Your task to perform on an android device: toggle javascript in the chrome app Image 0: 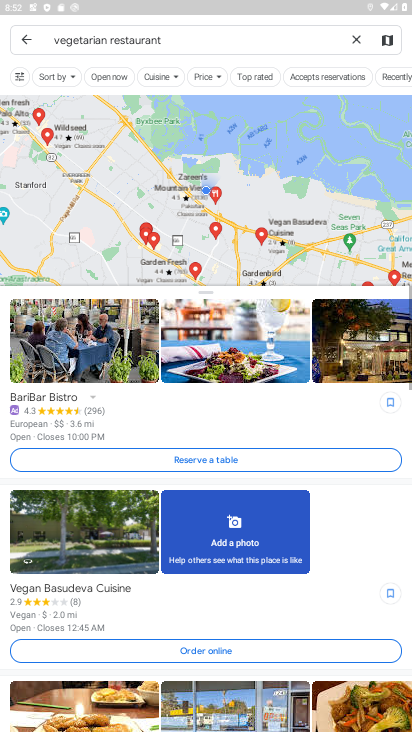
Step 0: press home button
Your task to perform on an android device: toggle javascript in the chrome app Image 1: 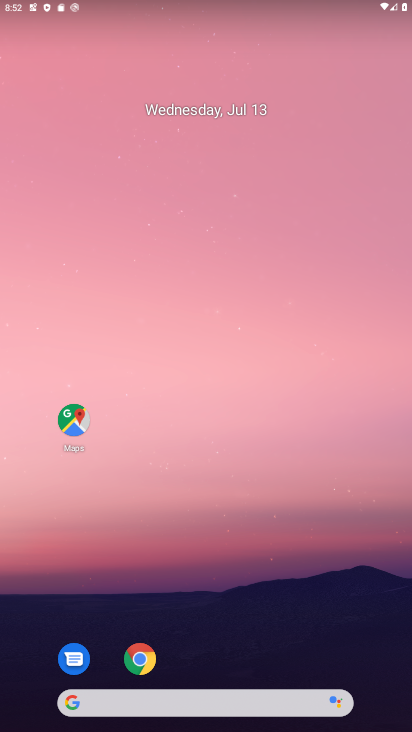
Step 1: click (140, 660)
Your task to perform on an android device: toggle javascript in the chrome app Image 2: 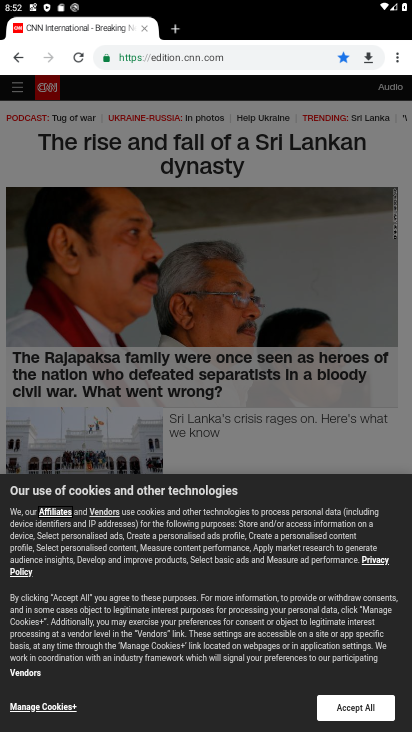
Step 2: click (394, 59)
Your task to perform on an android device: toggle javascript in the chrome app Image 3: 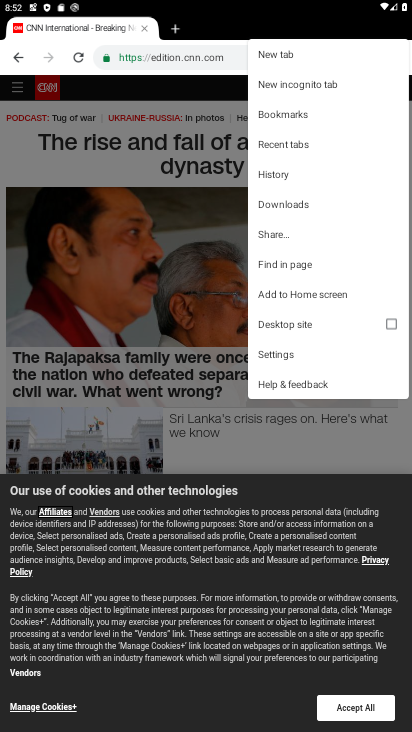
Step 3: click (284, 353)
Your task to perform on an android device: toggle javascript in the chrome app Image 4: 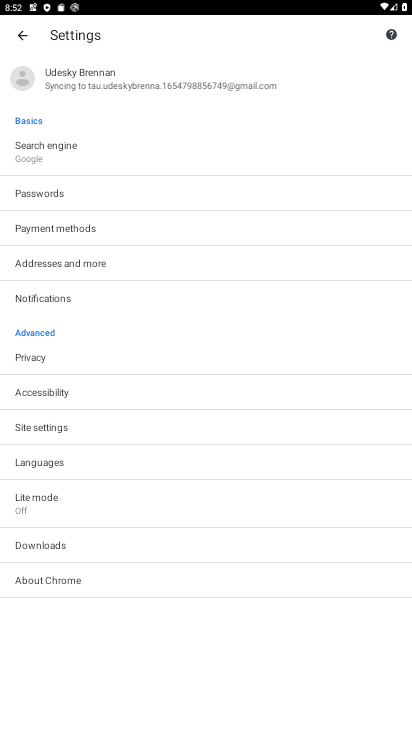
Step 4: click (40, 425)
Your task to perform on an android device: toggle javascript in the chrome app Image 5: 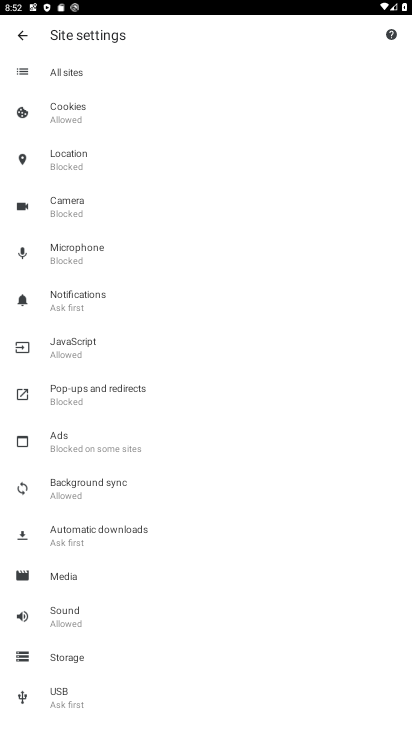
Step 5: click (92, 344)
Your task to perform on an android device: toggle javascript in the chrome app Image 6: 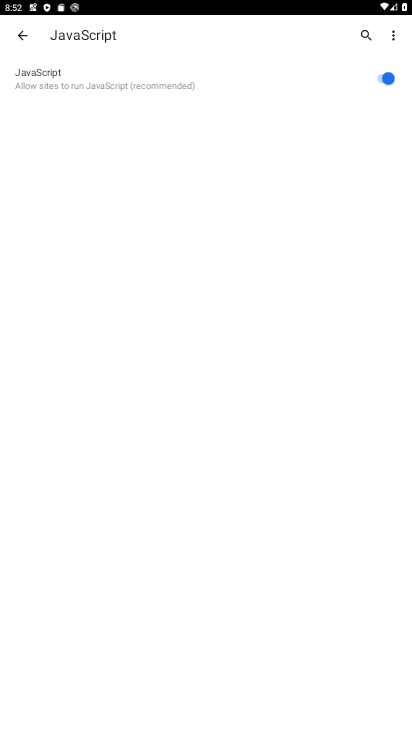
Step 6: click (378, 80)
Your task to perform on an android device: toggle javascript in the chrome app Image 7: 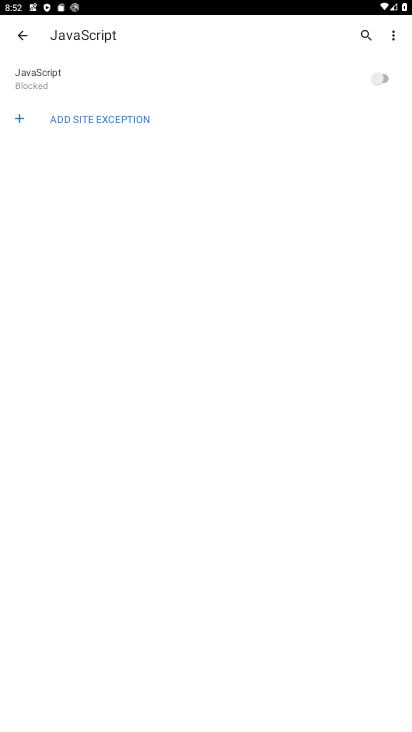
Step 7: task complete